Your task to perform on an android device: check the backup settings in the google photos Image 0: 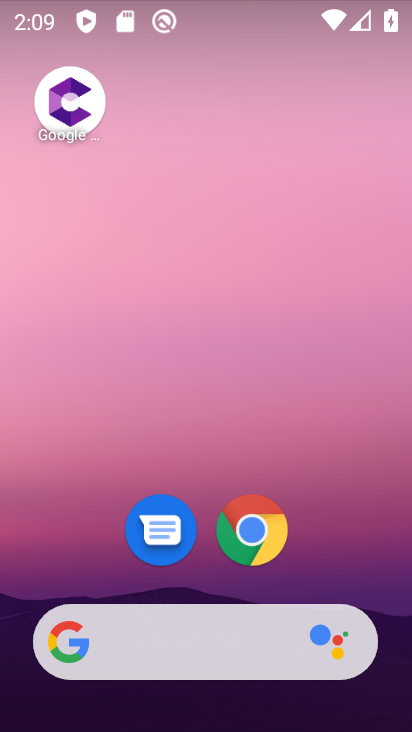
Step 0: drag from (336, 550) to (289, 302)
Your task to perform on an android device: check the backup settings in the google photos Image 1: 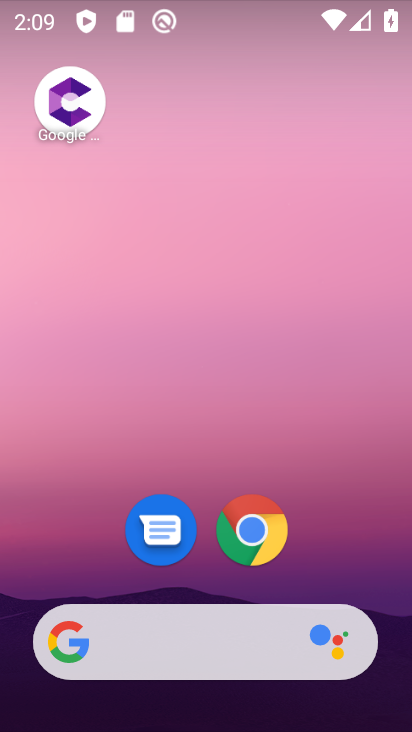
Step 1: drag from (310, 567) to (275, 314)
Your task to perform on an android device: check the backup settings in the google photos Image 2: 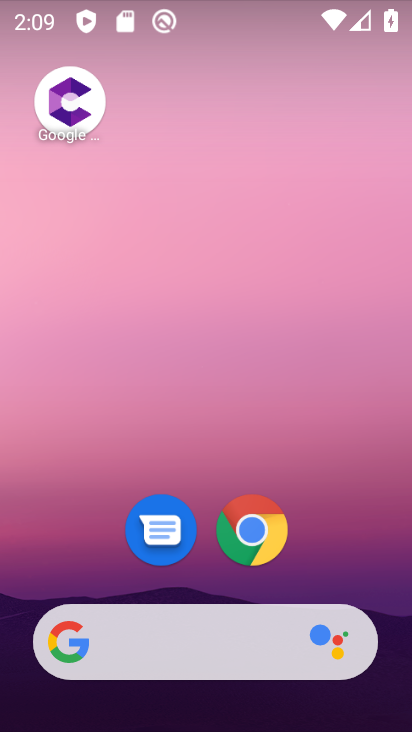
Step 2: drag from (372, 548) to (286, 99)
Your task to perform on an android device: check the backup settings in the google photos Image 3: 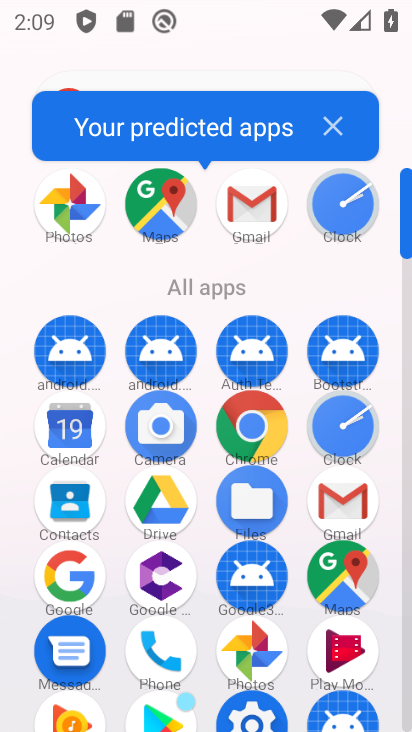
Step 3: click (406, 640)
Your task to perform on an android device: check the backup settings in the google photos Image 4: 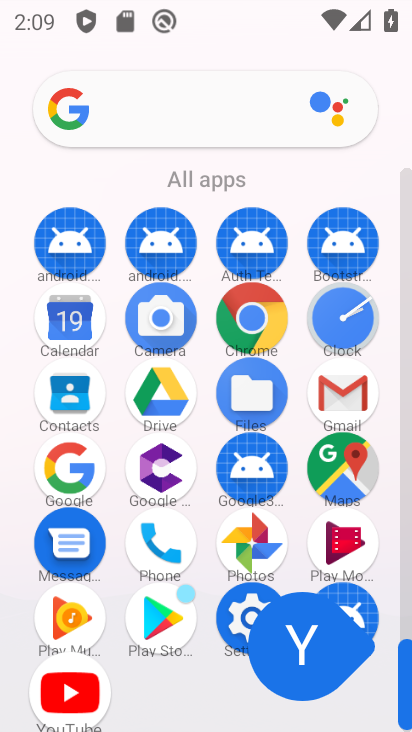
Step 4: click (405, 641)
Your task to perform on an android device: check the backup settings in the google photos Image 5: 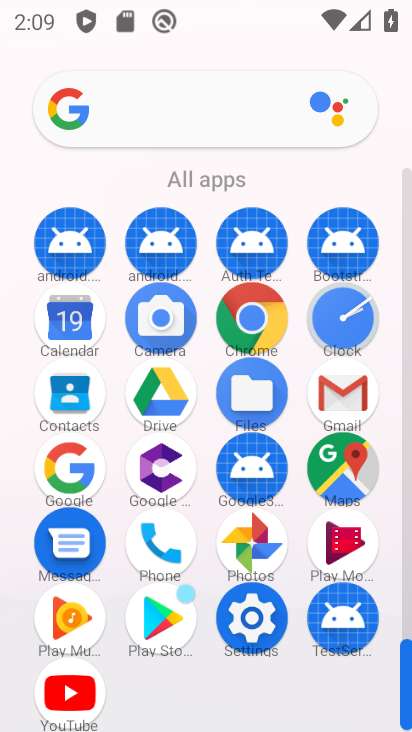
Step 5: click (260, 550)
Your task to perform on an android device: check the backup settings in the google photos Image 6: 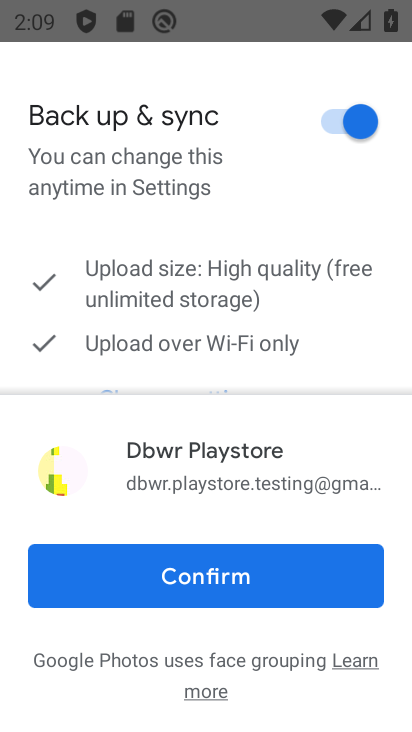
Step 6: click (259, 578)
Your task to perform on an android device: check the backup settings in the google photos Image 7: 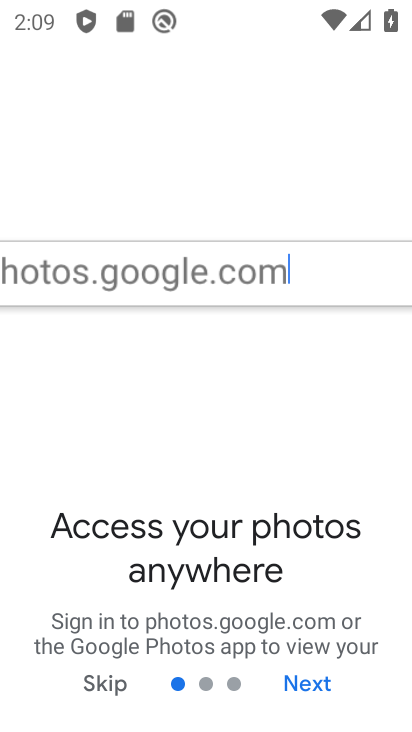
Step 7: click (295, 685)
Your task to perform on an android device: check the backup settings in the google photos Image 8: 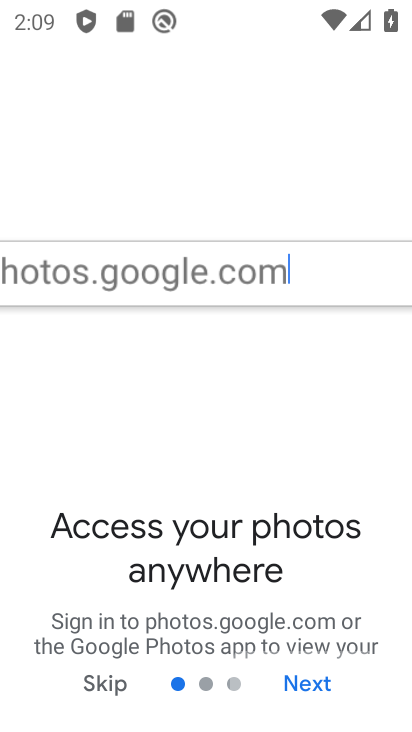
Step 8: click (296, 697)
Your task to perform on an android device: check the backup settings in the google photos Image 9: 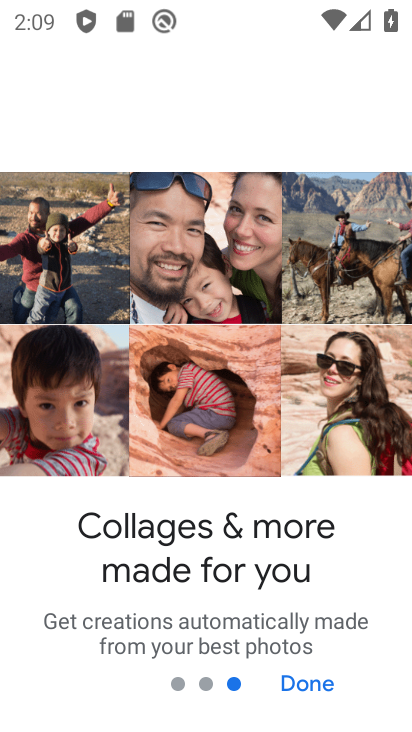
Step 9: click (300, 680)
Your task to perform on an android device: check the backup settings in the google photos Image 10: 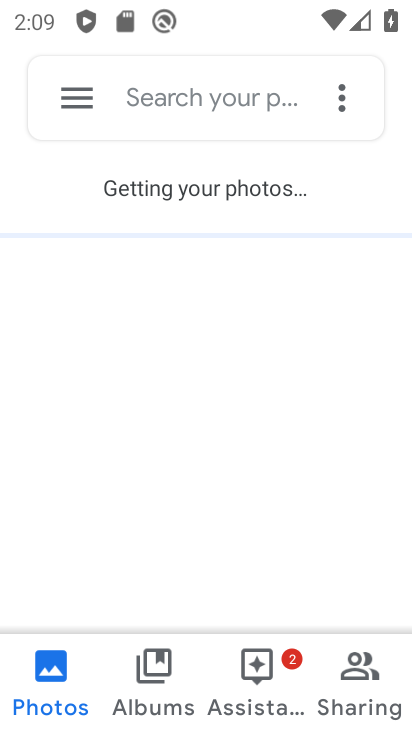
Step 10: click (74, 106)
Your task to perform on an android device: check the backup settings in the google photos Image 11: 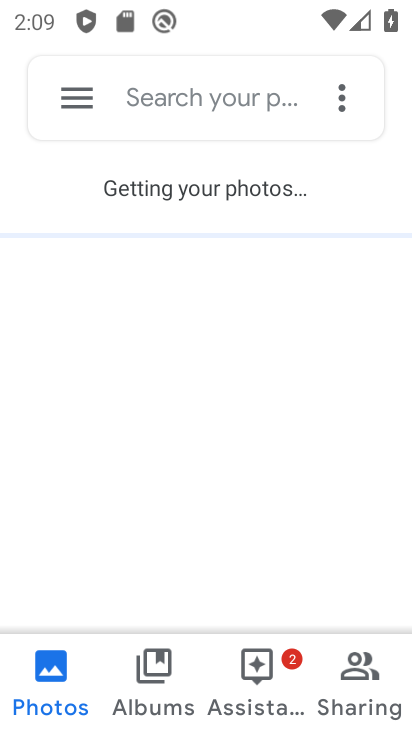
Step 11: click (74, 106)
Your task to perform on an android device: check the backup settings in the google photos Image 12: 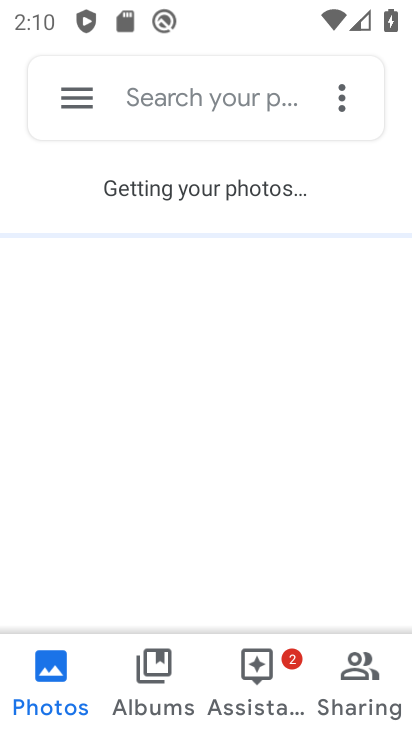
Step 12: click (74, 106)
Your task to perform on an android device: check the backup settings in the google photos Image 13: 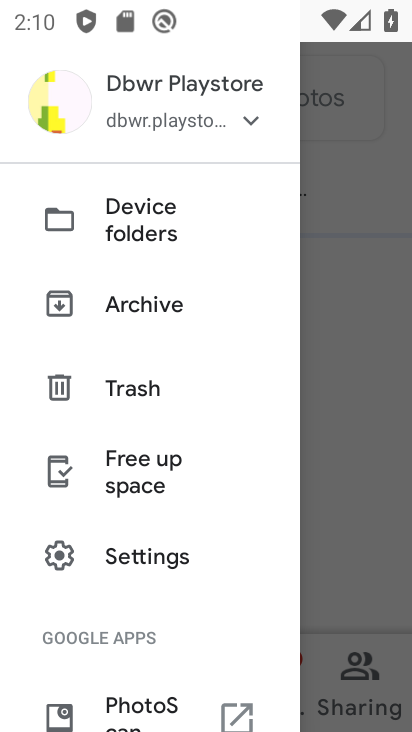
Step 13: click (134, 561)
Your task to perform on an android device: check the backup settings in the google photos Image 14: 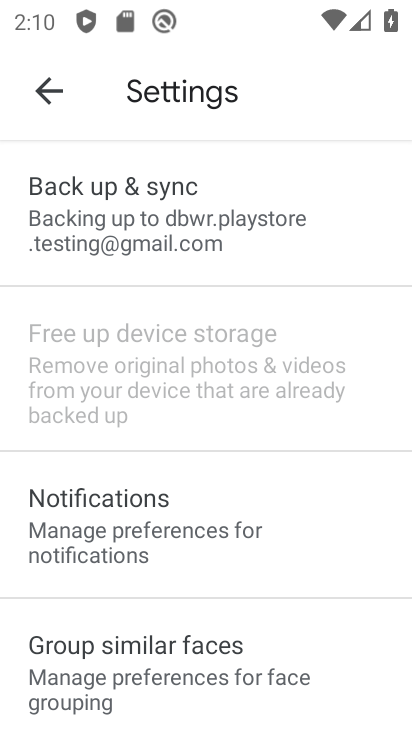
Step 14: click (168, 235)
Your task to perform on an android device: check the backup settings in the google photos Image 15: 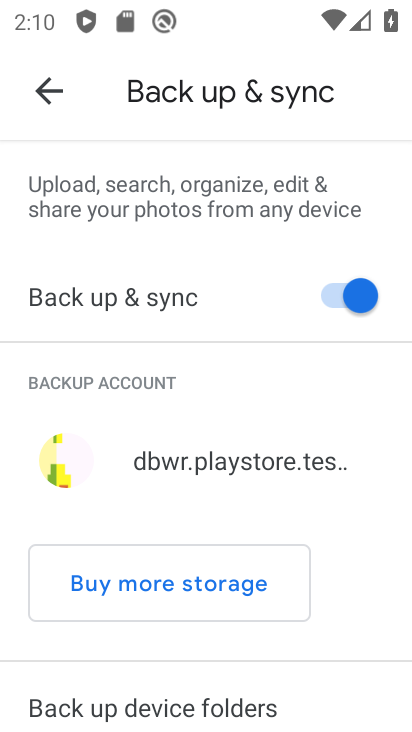
Step 15: task complete